Your task to perform on an android device: Open Google Chrome Image 0: 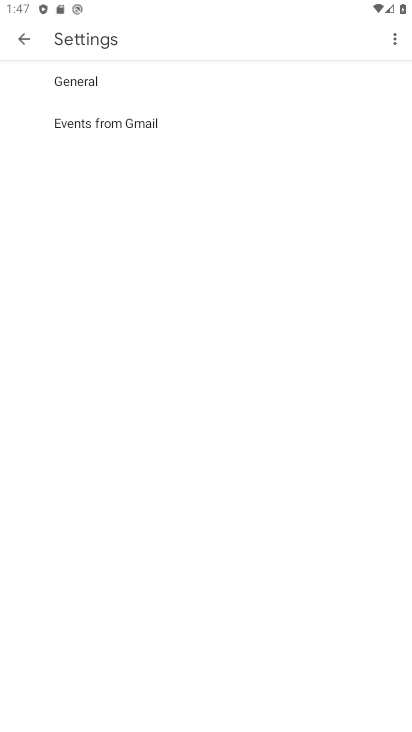
Step 0: press home button
Your task to perform on an android device: Open Google Chrome Image 1: 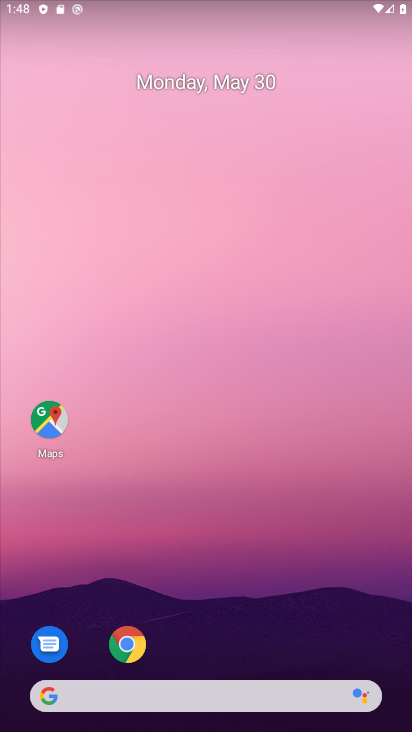
Step 1: click (128, 650)
Your task to perform on an android device: Open Google Chrome Image 2: 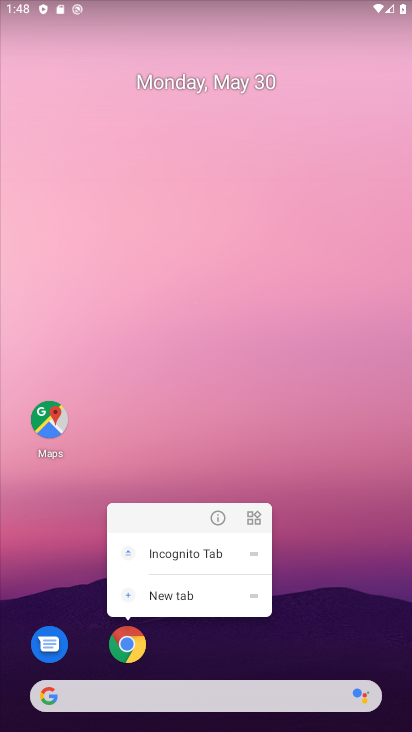
Step 2: click (125, 654)
Your task to perform on an android device: Open Google Chrome Image 3: 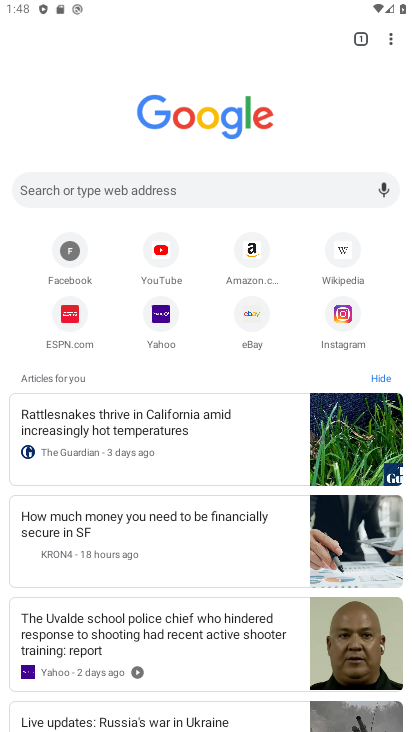
Step 3: task complete